Your task to perform on an android device: View the shopping cart on amazon.com. Search for asus rog on amazon.com, select the first entry, and add it to the cart. Image 0: 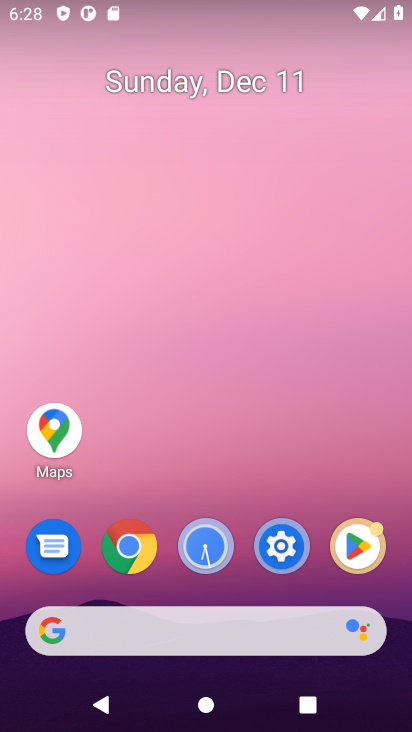
Step 0: click (133, 547)
Your task to perform on an android device: View the shopping cart on amazon.com. Search for asus rog on amazon.com, select the first entry, and add it to the cart. Image 1: 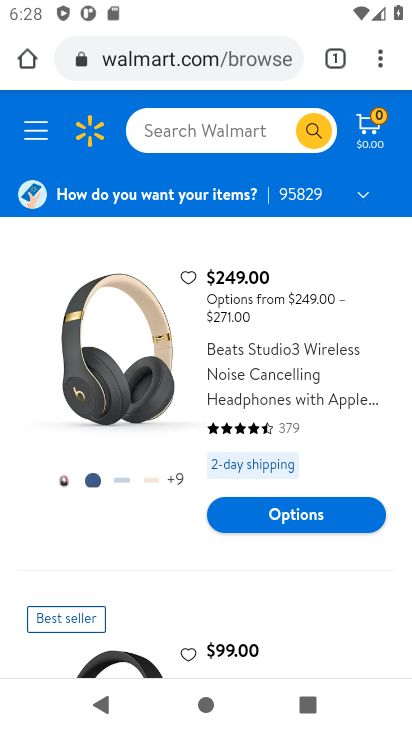
Step 1: click (189, 64)
Your task to perform on an android device: View the shopping cart on amazon.com. Search for asus rog on amazon.com, select the first entry, and add it to the cart. Image 2: 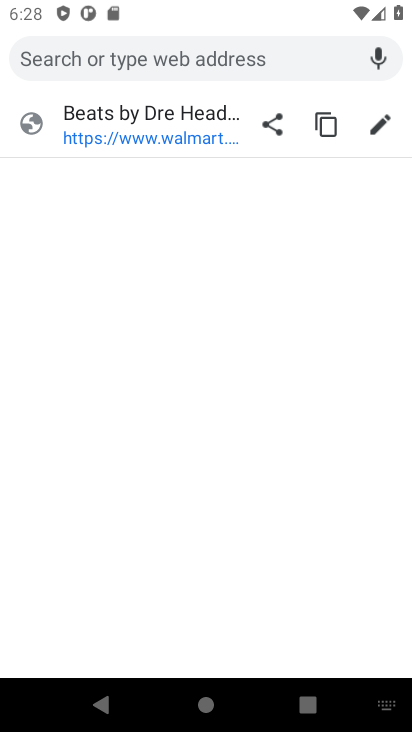
Step 2: type "amazon.com"
Your task to perform on an android device: View the shopping cart on amazon.com. Search for asus rog on amazon.com, select the first entry, and add it to the cart. Image 3: 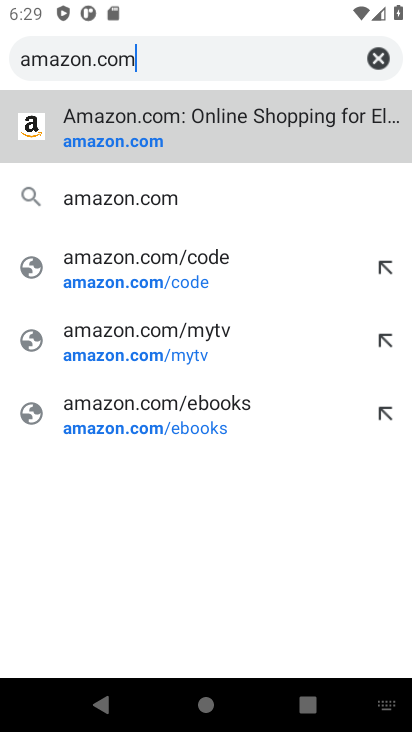
Step 3: click (102, 150)
Your task to perform on an android device: View the shopping cart on amazon.com. Search for asus rog on amazon.com, select the first entry, and add it to the cart. Image 4: 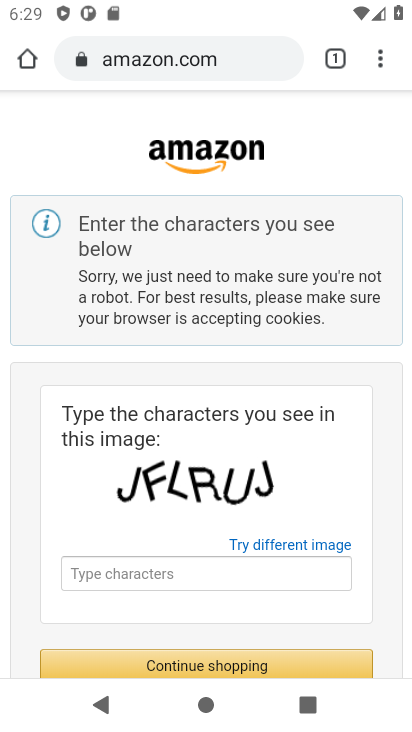
Step 4: click (167, 572)
Your task to perform on an android device: View the shopping cart on amazon.com. Search for asus rog on amazon.com, select the first entry, and add it to the cart. Image 5: 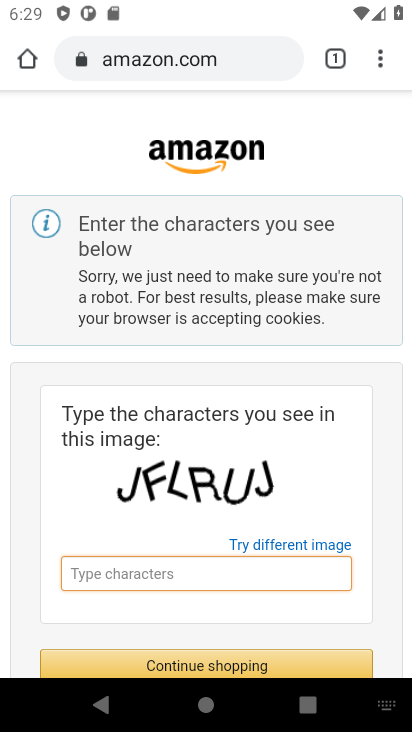
Step 5: type "JFLRUJ"
Your task to perform on an android device: View the shopping cart on amazon.com. Search for asus rog on amazon.com, select the first entry, and add it to the cart. Image 6: 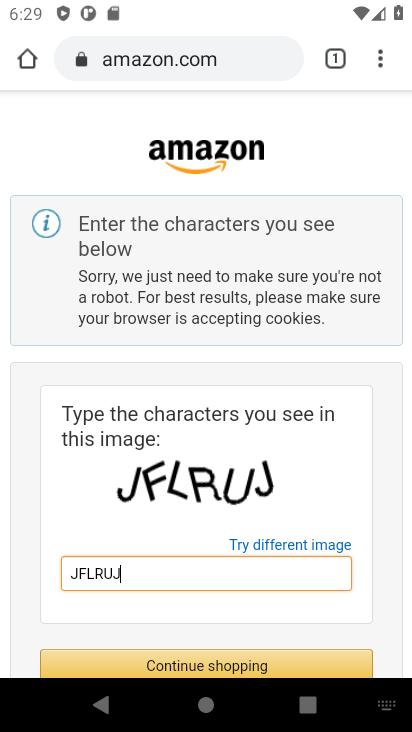
Step 6: click (266, 662)
Your task to perform on an android device: View the shopping cart on amazon.com. Search for asus rog on amazon.com, select the first entry, and add it to the cart. Image 7: 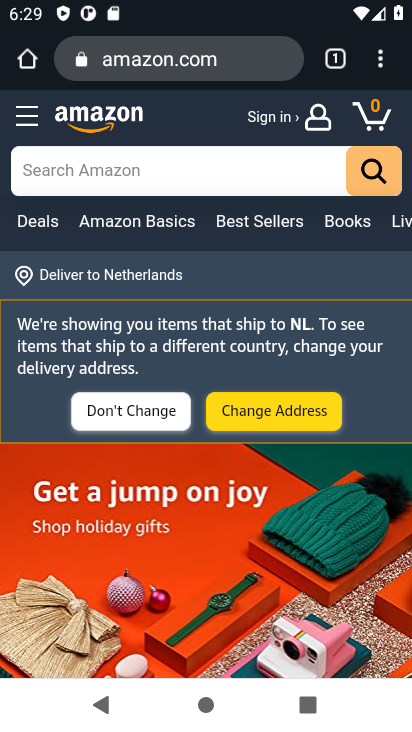
Step 7: click (371, 111)
Your task to perform on an android device: View the shopping cart on amazon.com. Search for asus rog on amazon.com, select the first entry, and add it to the cart. Image 8: 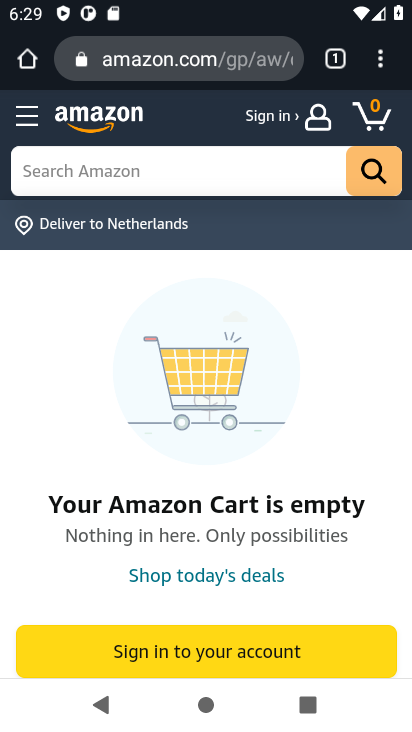
Step 8: click (61, 169)
Your task to perform on an android device: View the shopping cart on amazon.com. Search for asus rog on amazon.com, select the first entry, and add it to the cart. Image 9: 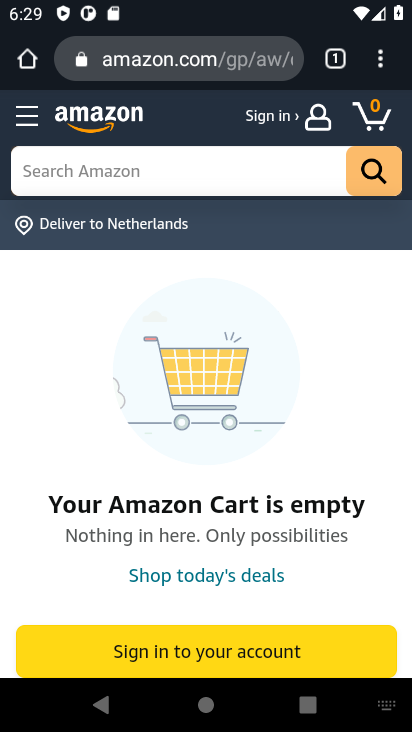
Step 9: type "asus rog"
Your task to perform on an android device: View the shopping cart on amazon.com. Search for asus rog on amazon.com, select the first entry, and add it to the cart. Image 10: 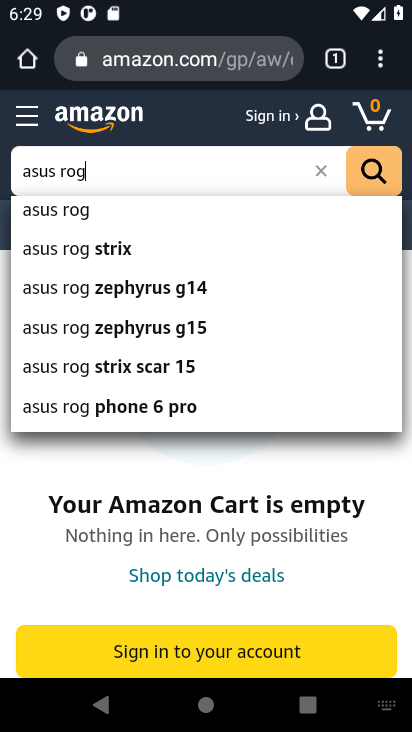
Step 10: click (72, 212)
Your task to perform on an android device: View the shopping cart on amazon.com. Search for asus rog on amazon.com, select the first entry, and add it to the cart. Image 11: 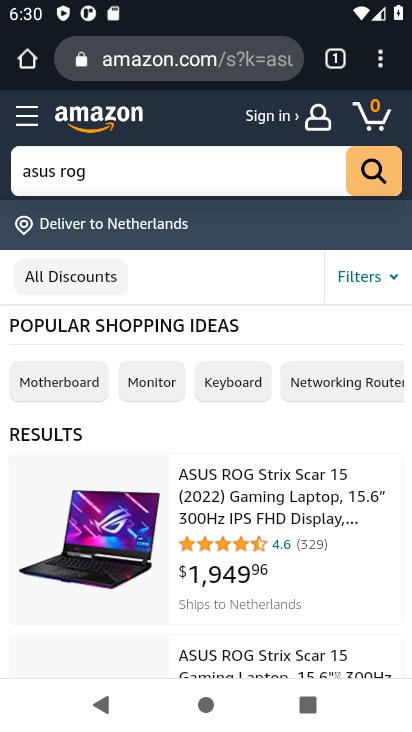
Step 11: drag from (190, 523) to (205, 345)
Your task to perform on an android device: View the shopping cart on amazon.com. Search for asus rog on amazon.com, select the first entry, and add it to the cart. Image 12: 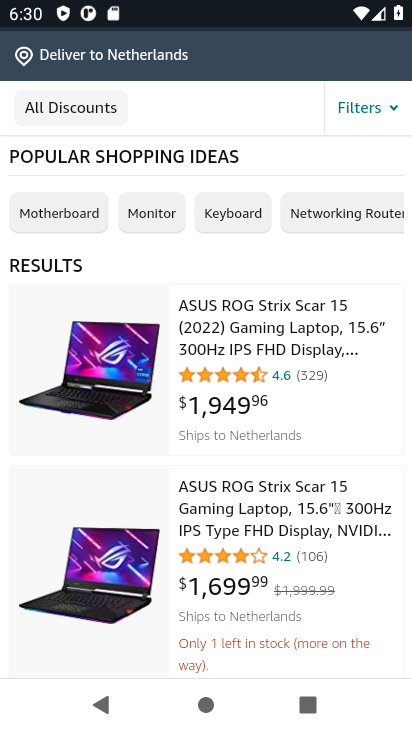
Step 12: click (217, 334)
Your task to perform on an android device: View the shopping cart on amazon.com. Search for asus rog on amazon.com, select the first entry, and add it to the cart. Image 13: 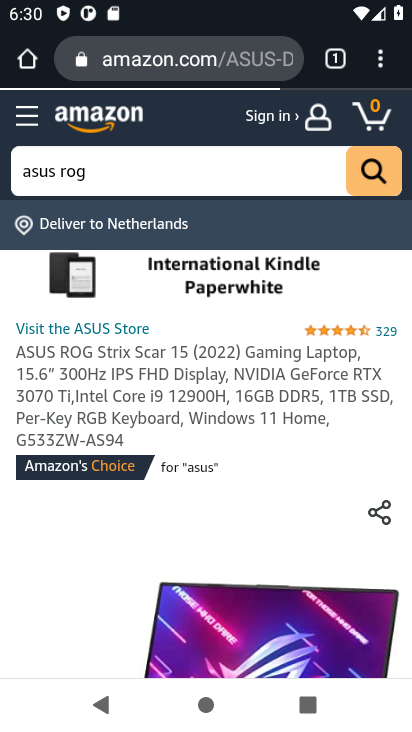
Step 13: drag from (218, 471) to (221, 175)
Your task to perform on an android device: View the shopping cart on amazon.com. Search for asus rog on amazon.com, select the first entry, and add it to the cart. Image 14: 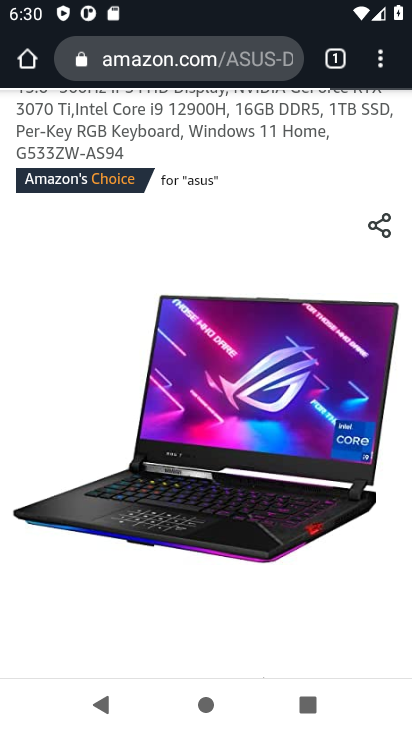
Step 14: drag from (201, 474) to (193, 156)
Your task to perform on an android device: View the shopping cart on amazon.com. Search for asus rog on amazon.com, select the first entry, and add it to the cart. Image 15: 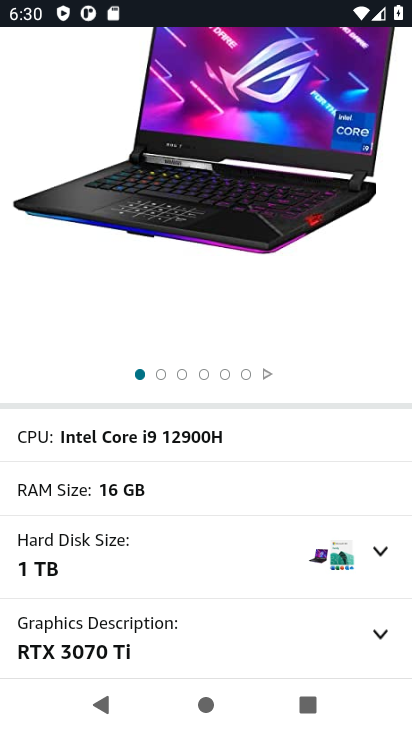
Step 15: drag from (184, 453) to (186, 135)
Your task to perform on an android device: View the shopping cart on amazon.com. Search for asus rog on amazon.com, select the first entry, and add it to the cart. Image 16: 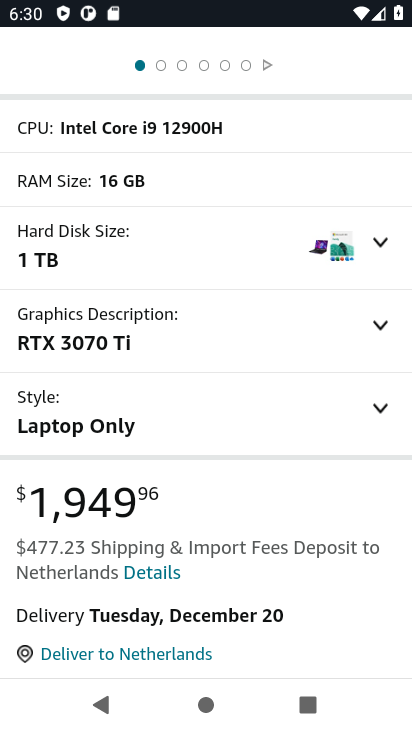
Step 16: drag from (143, 487) to (173, 216)
Your task to perform on an android device: View the shopping cart on amazon.com. Search for asus rog on amazon.com, select the first entry, and add it to the cart. Image 17: 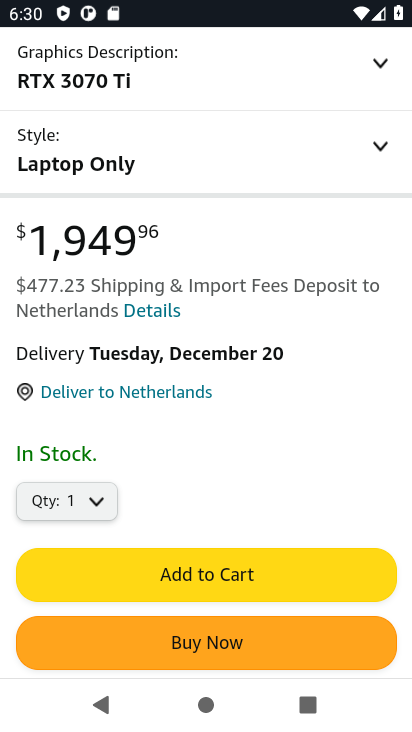
Step 17: click (161, 576)
Your task to perform on an android device: View the shopping cart on amazon.com. Search for asus rog on amazon.com, select the first entry, and add it to the cart. Image 18: 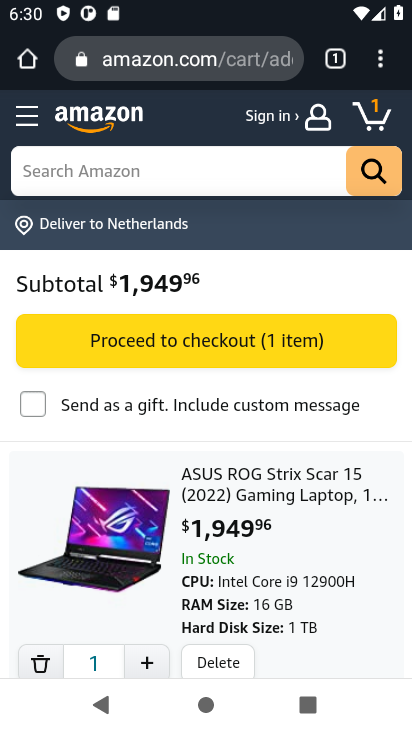
Step 18: task complete